Your task to perform on an android device: When is my next appointment? Image 0: 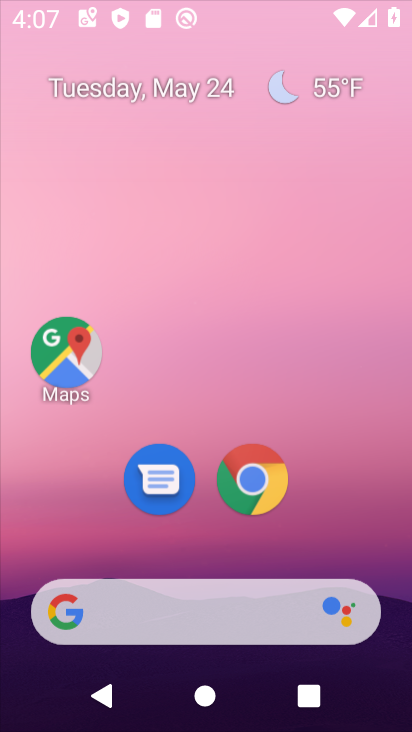
Step 0: click (250, 491)
Your task to perform on an android device: When is my next appointment? Image 1: 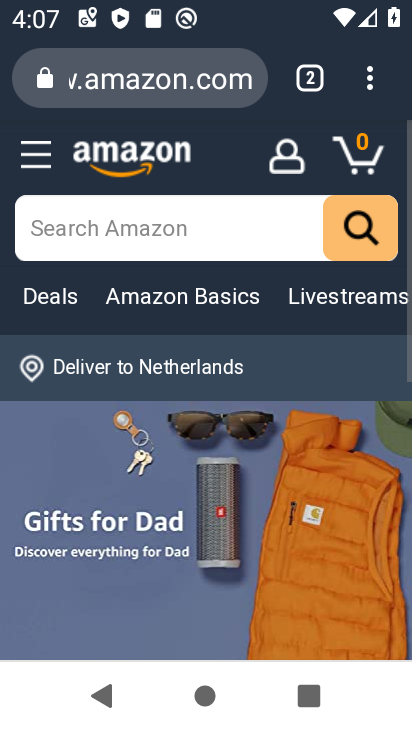
Step 1: press home button
Your task to perform on an android device: When is my next appointment? Image 2: 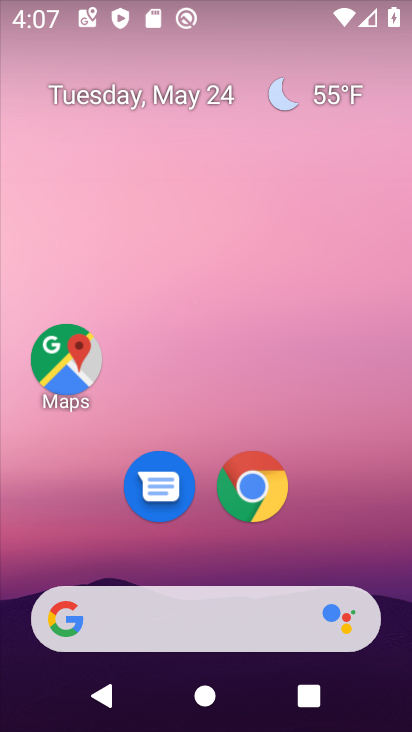
Step 2: drag from (346, 479) to (296, 109)
Your task to perform on an android device: When is my next appointment? Image 3: 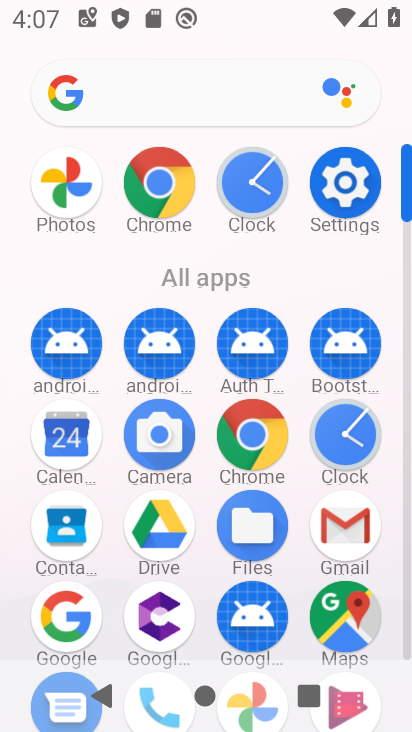
Step 3: click (49, 441)
Your task to perform on an android device: When is my next appointment? Image 4: 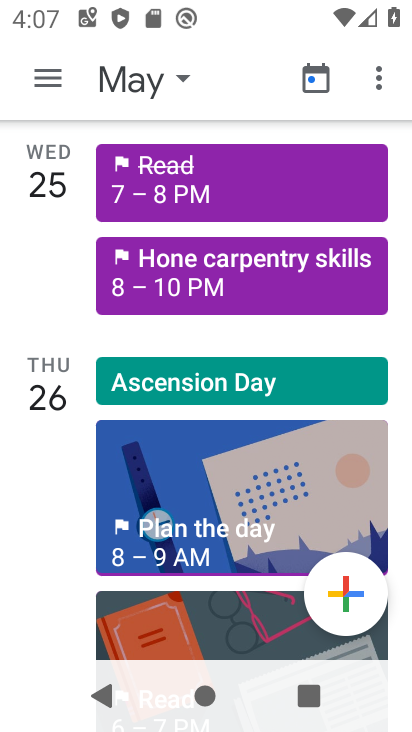
Step 4: task complete